Your task to perform on an android device: add a label to a message in the gmail app Image 0: 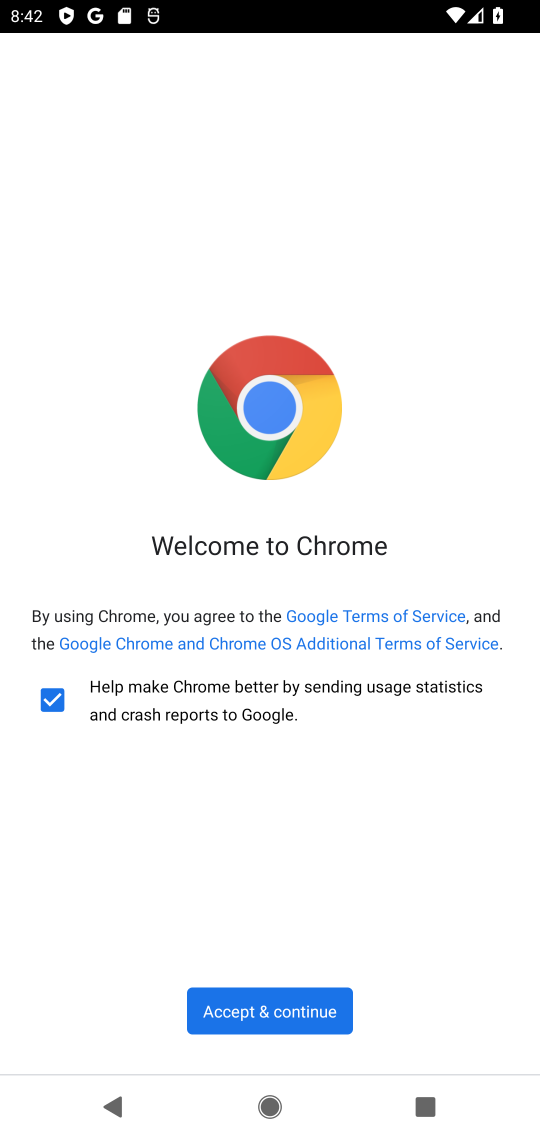
Step 0: press home button
Your task to perform on an android device: add a label to a message in the gmail app Image 1: 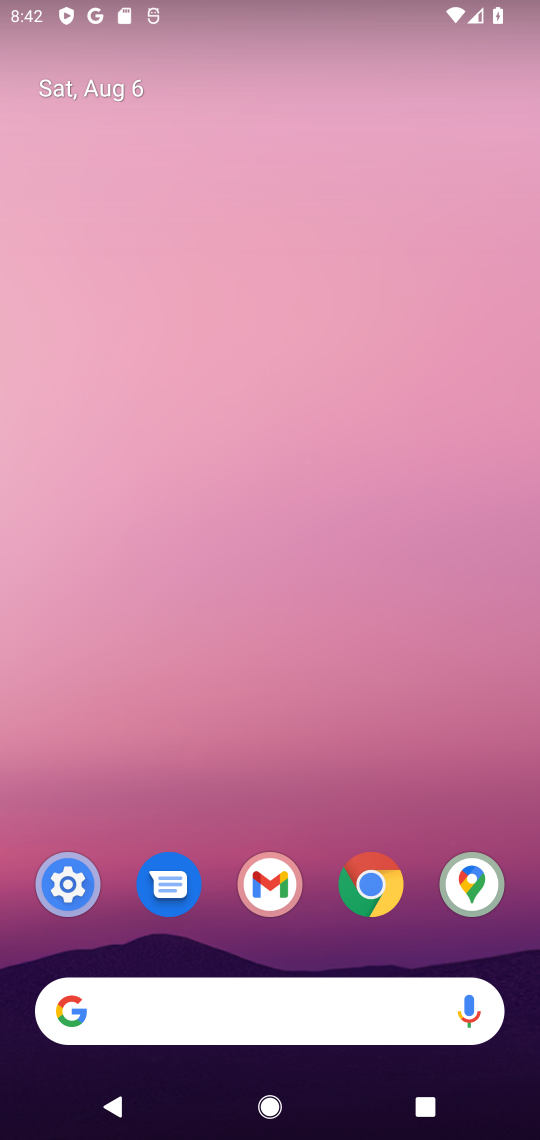
Step 1: click (271, 888)
Your task to perform on an android device: add a label to a message in the gmail app Image 2: 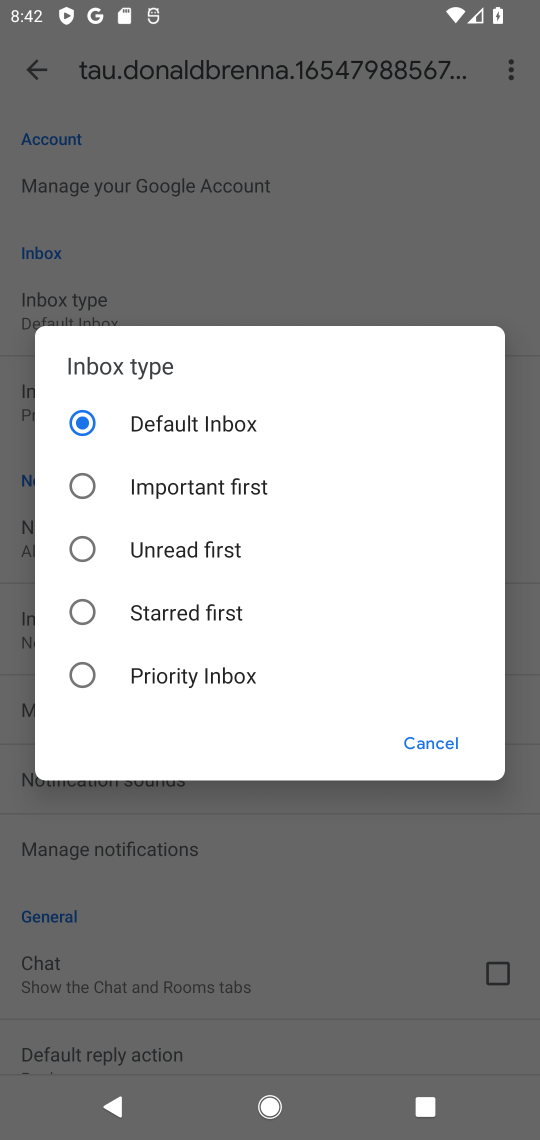
Step 2: click (428, 747)
Your task to perform on an android device: add a label to a message in the gmail app Image 3: 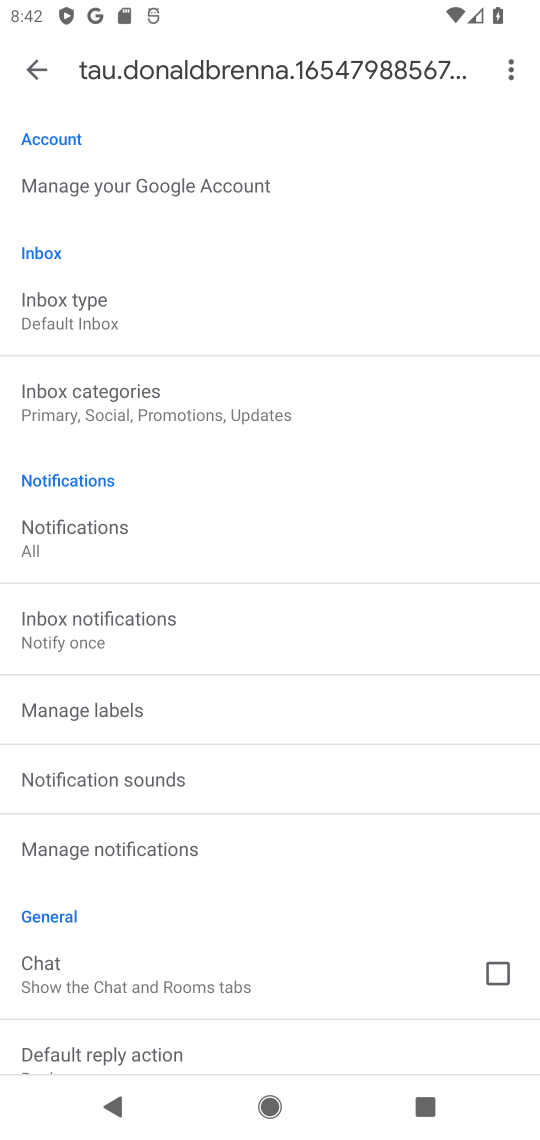
Step 3: press back button
Your task to perform on an android device: add a label to a message in the gmail app Image 4: 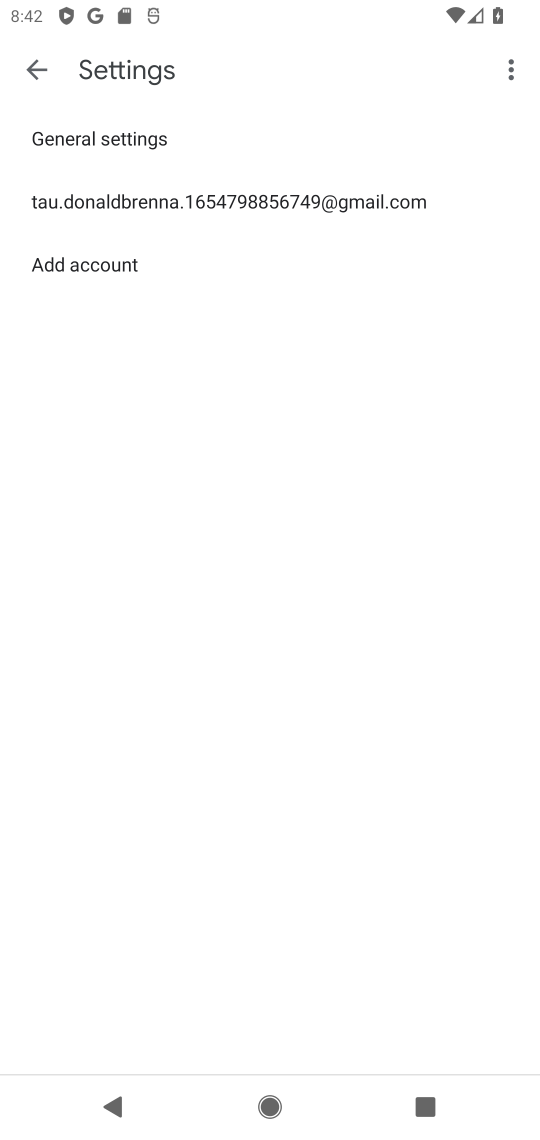
Step 4: press back button
Your task to perform on an android device: add a label to a message in the gmail app Image 5: 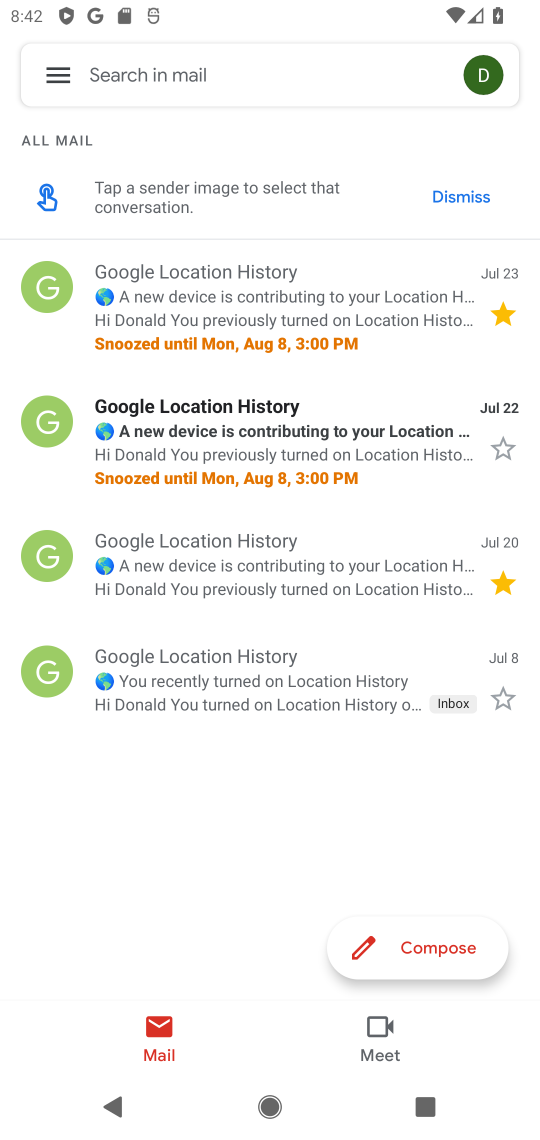
Step 5: click (220, 682)
Your task to perform on an android device: add a label to a message in the gmail app Image 6: 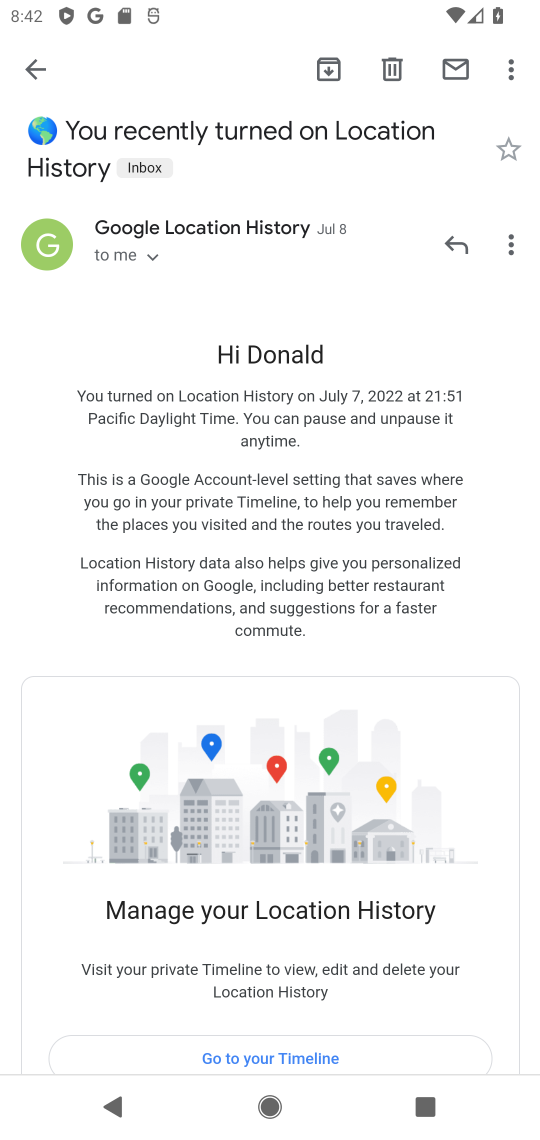
Step 6: click (506, 81)
Your task to perform on an android device: add a label to a message in the gmail app Image 7: 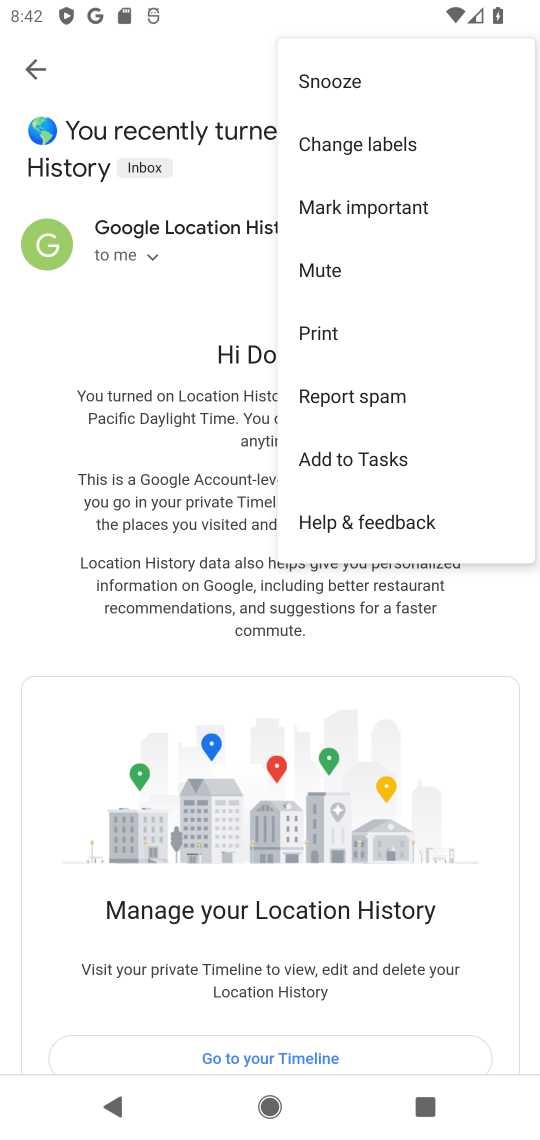
Step 7: click (357, 198)
Your task to perform on an android device: add a label to a message in the gmail app Image 8: 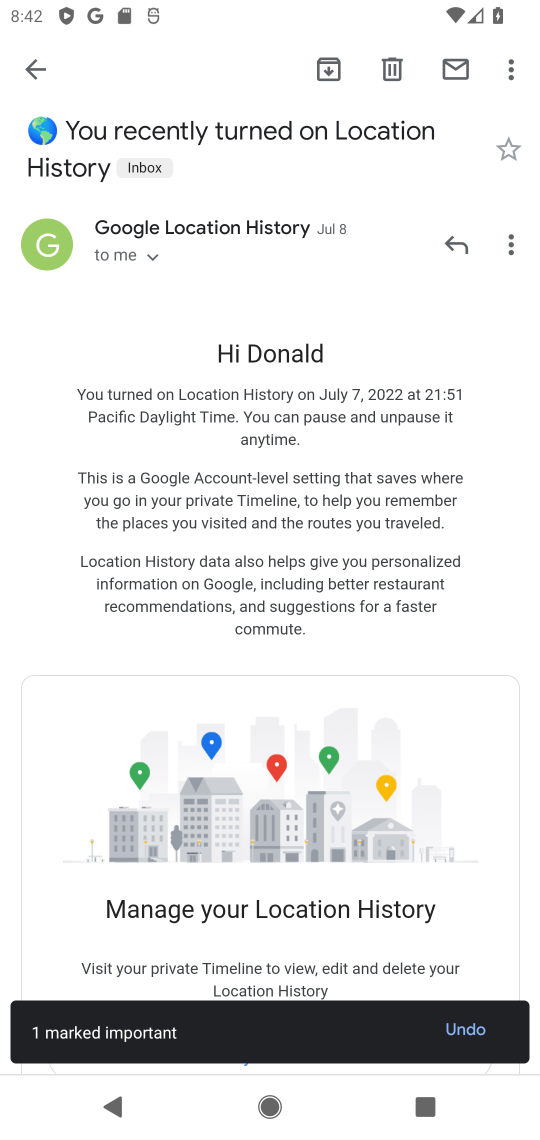
Step 8: task complete